Your task to perform on an android device: open a new tab in the chrome app Image 0: 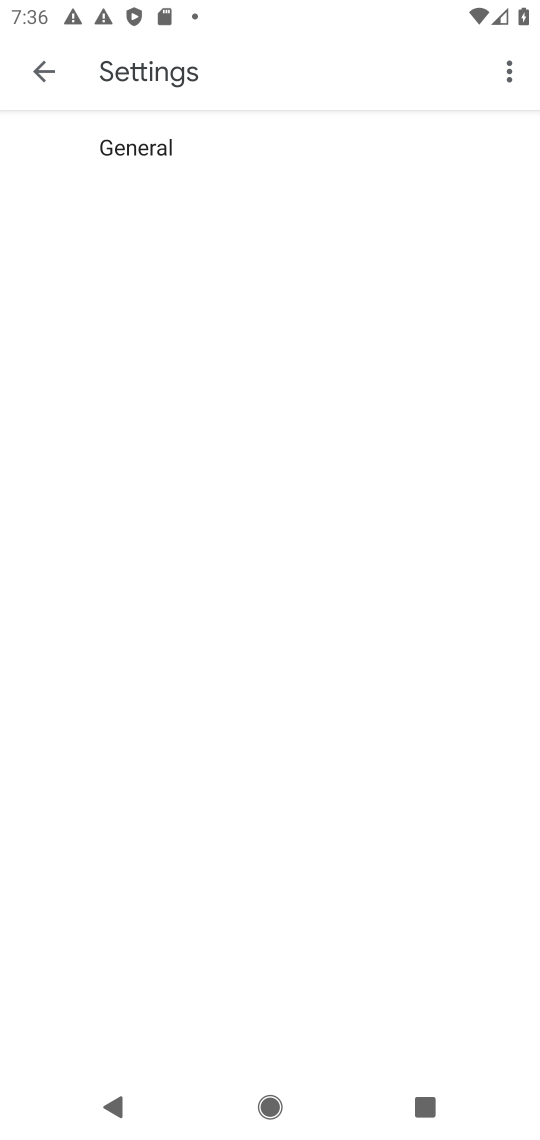
Step 0: press home button
Your task to perform on an android device: open a new tab in the chrome app Image 1: 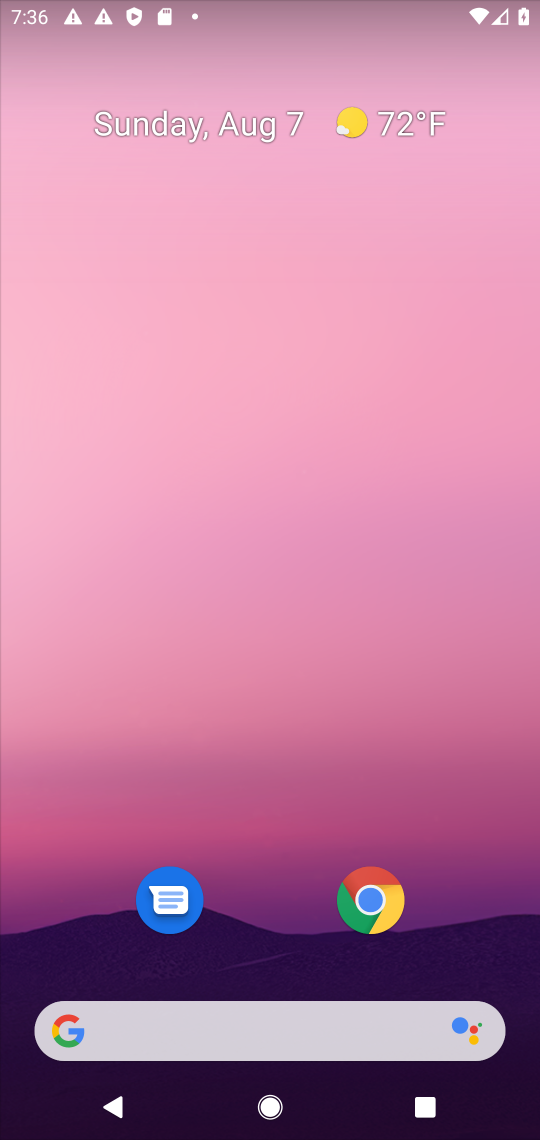
Step 1: click (369, 900)
Your task to perform on an android device: open a new tab in the chrome app Image 2: 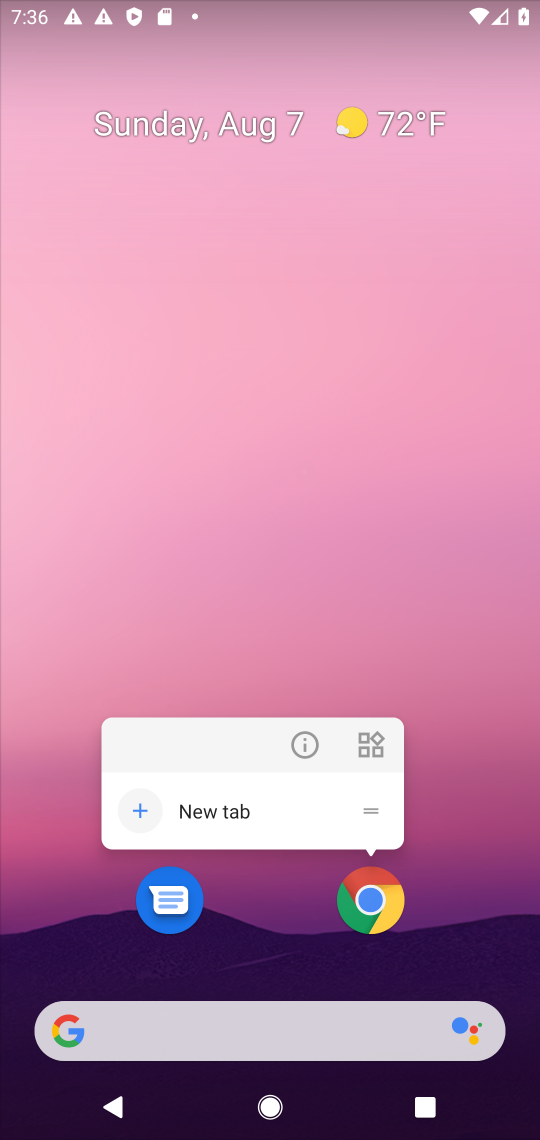
Step 2: click (369, 906)
Your task to perform on an android device: open a new tab in the chrome app Image 3: 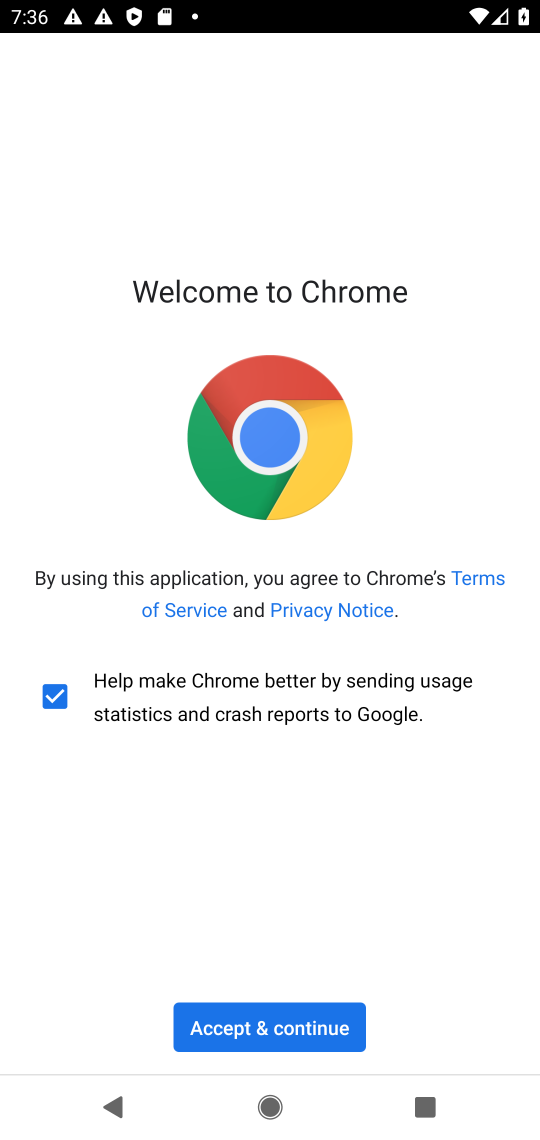
Step 3: click (256, 1034)
Your task to perform on an android device: open a new tab in the chrome app Image 4: 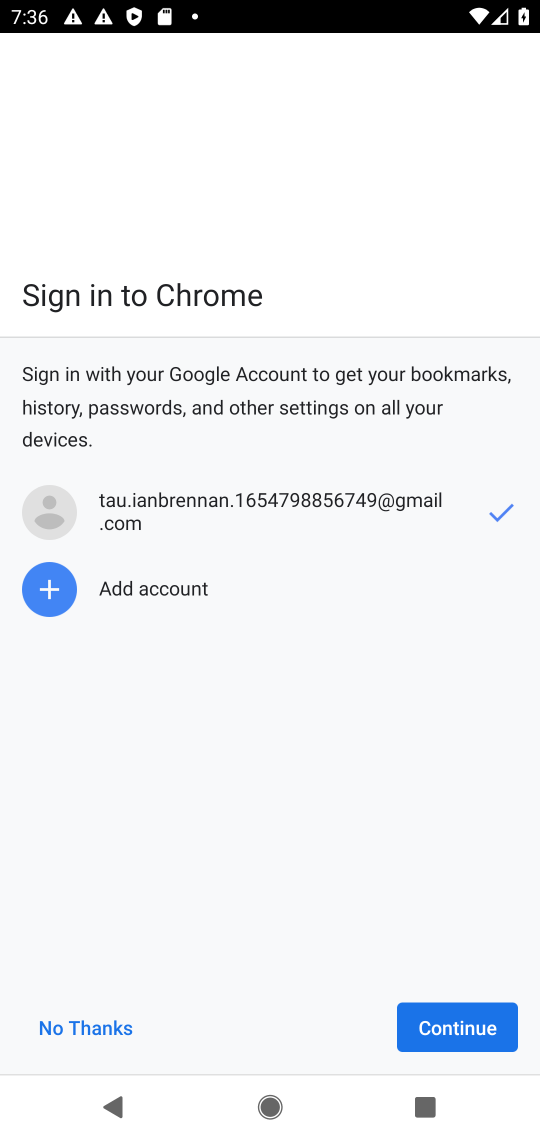
Step 4: click (440, 1015)
Your task to perform on an android device: open a new tab in the chrome app Image 5: 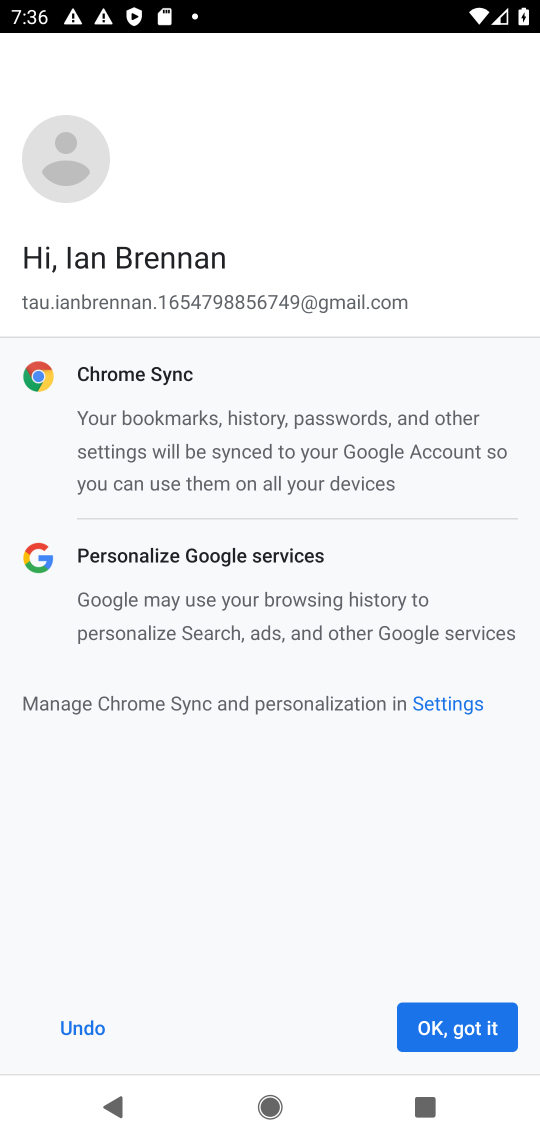
Step 5: click (447, 1034)
Your task to perform on an android device: open a new tab in the chrome app Image 6: 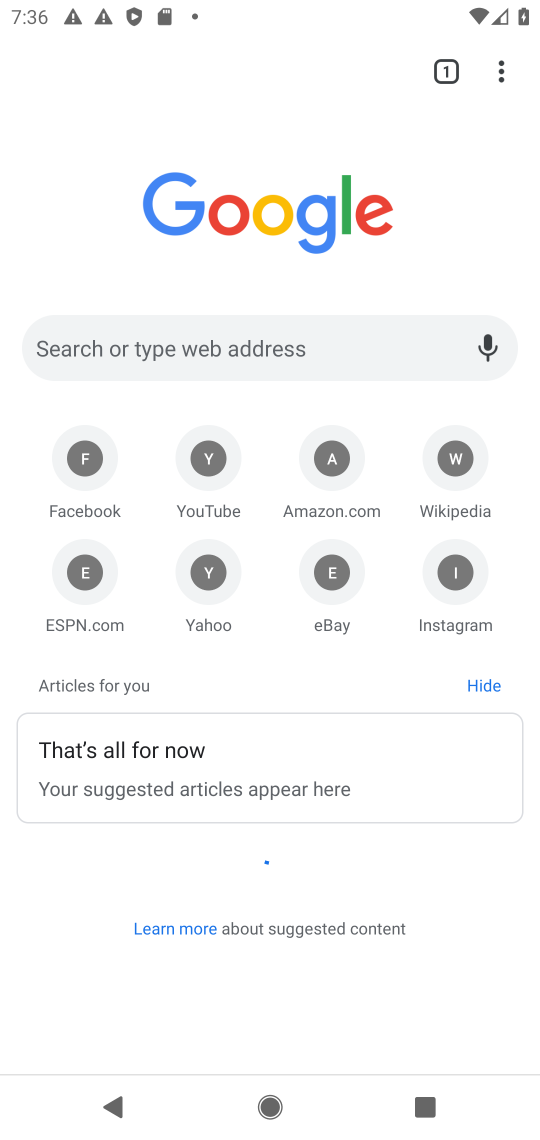
Step 6: task complete